Your task to perform on an android device: Open Android settings Image 0: 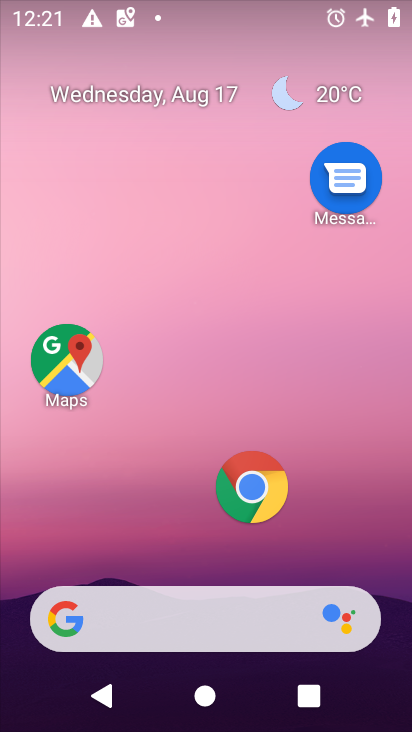
Step 0: drag from (164, 599) to (259, 81)
Your task to perform on an android device: Open Android settings Image 1: 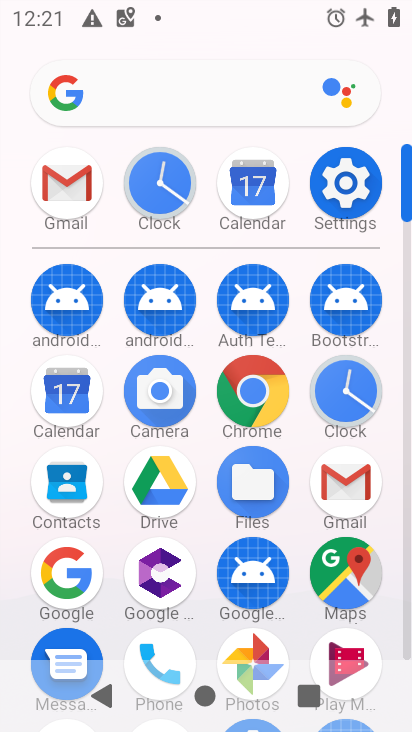
Step 1: click (369, 191)
Your task to perform on an android device: Open Android settings Image 2: 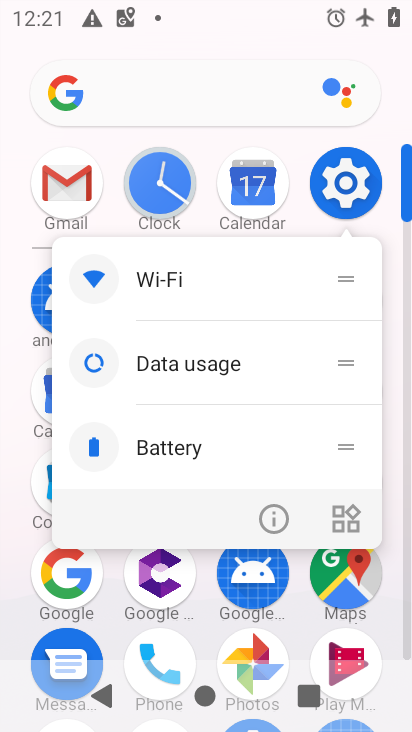
Step 2: click (353, 194)
Your task to perform on an android device: Open Android settings Image 3: 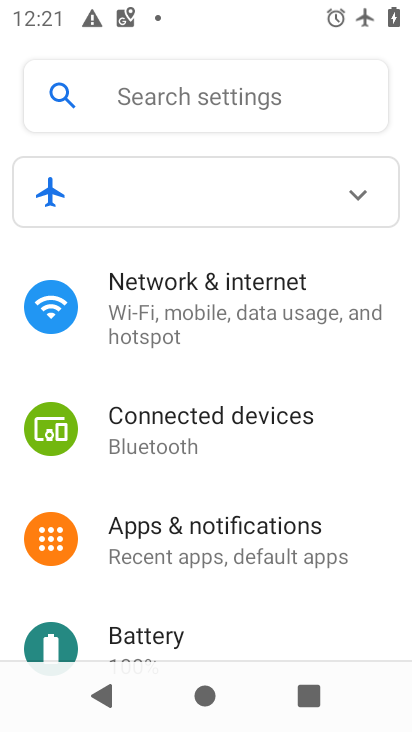
Step 3: drag from (175, 615) to (285, 29)
Your task to perform on an android device: Open Android settings Image 4: 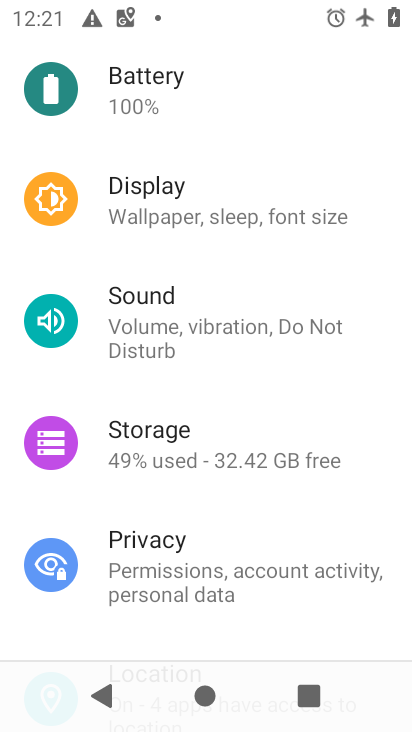
Step 4: drag from (168, 586) to (232, 26)
Your task to perform on an android device: Open Android settings Image 5: 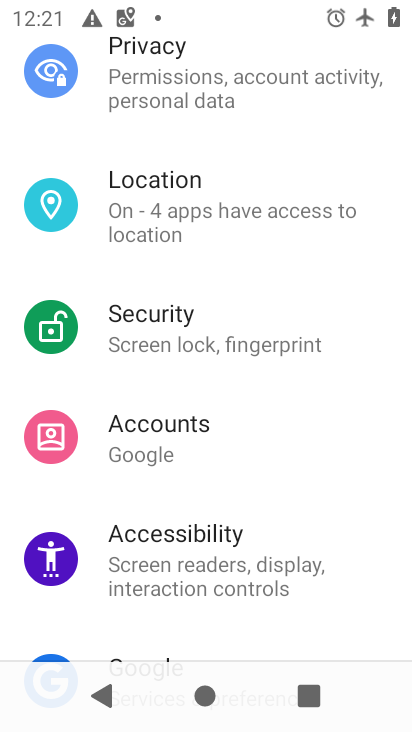
Step 5: drag from (143, 620) to (261, 0)
Your task to perform on an android device: Open Android settings Image 6: 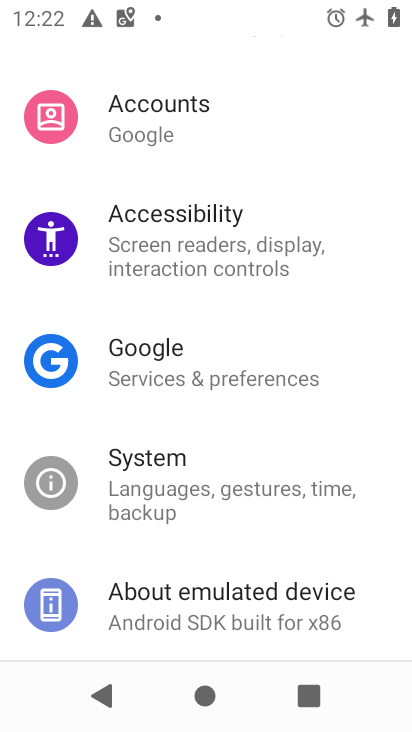
Step 6: drag from (218, 418) to (301, 8)
Your task to perform on an android device: Open Android settings Image 7: 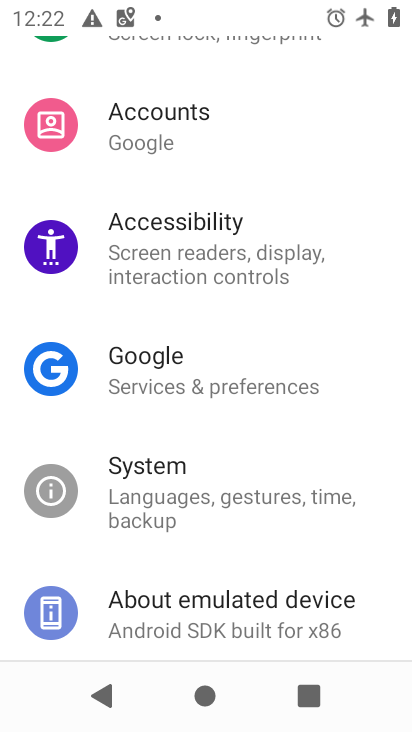
Step 7: click (158, 626)
Your task to perform on an android device: Open Android settings Image 8: 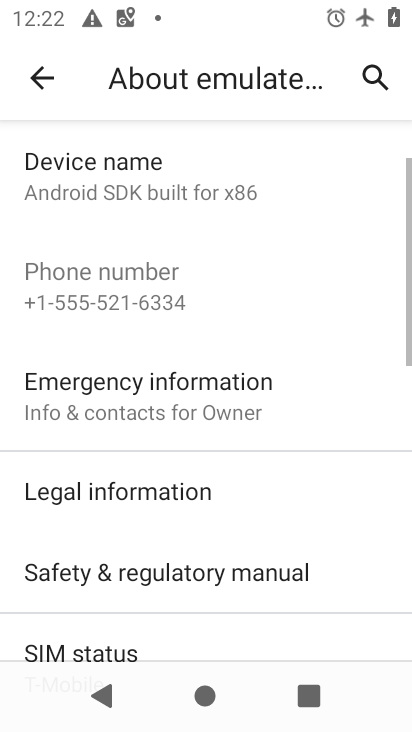
Step 8: task complete